Your task to perform on an android device: change alarm snooze length Image 0: 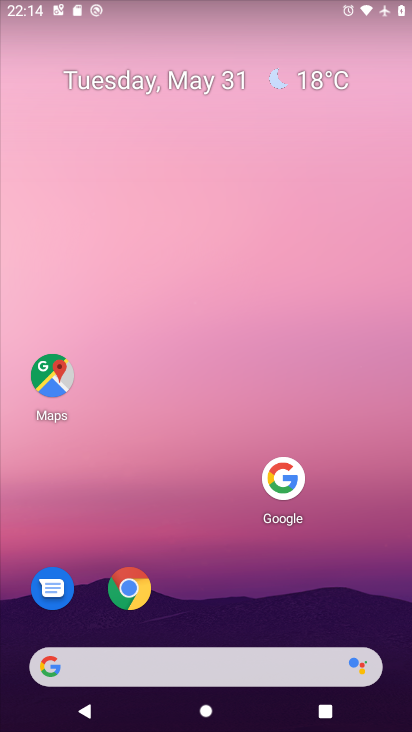
Step 0: press home button
Your task to perform on an android device: change alarm snooze length Image 1: 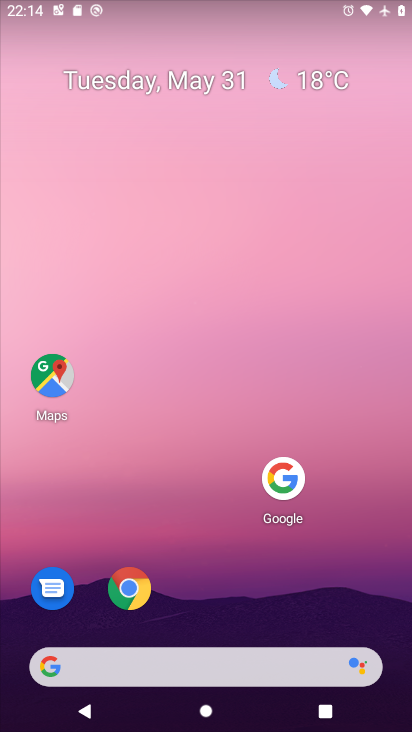
Step 1: drag from (176, 666) to (281, 223)
Your task to perform on an android device: change alarm snooze length Image 2: 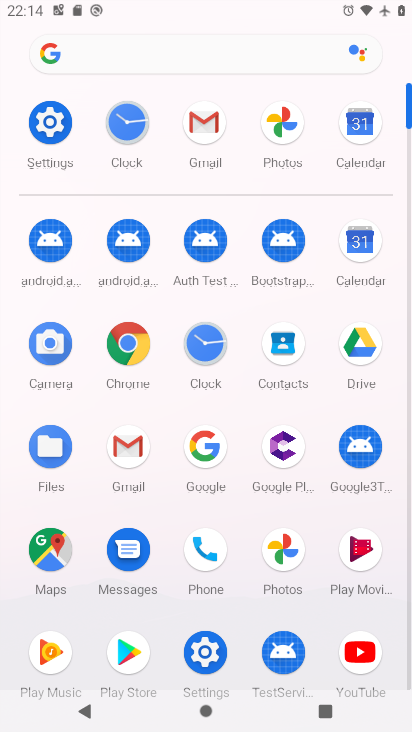
Step 2: click (199, 345)
Your task to perform on an android device: change alarm snooze length Image 3: 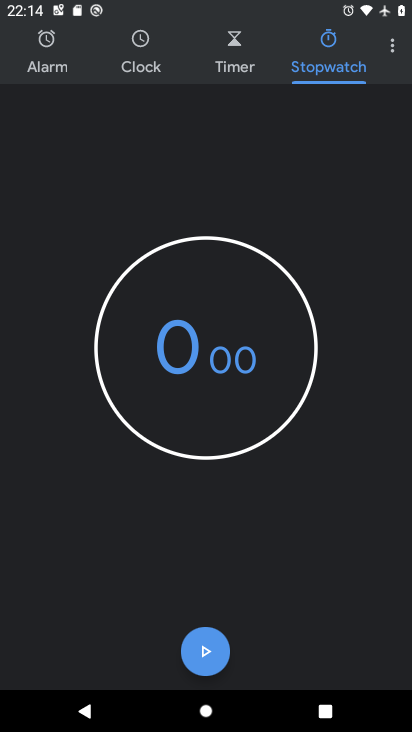
Step 3: click (394, 49)
Your task to perform on an android device: change alarm snooze length Image 4: 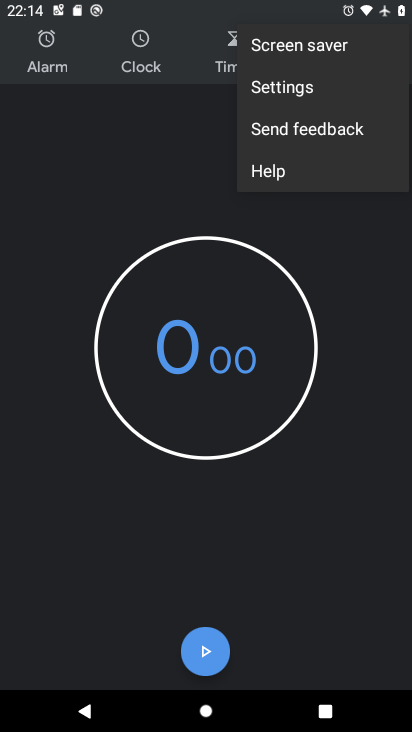
Step 4: click (287, 94)
Your task to perform on an android device: change alarm snooze length Image 5: 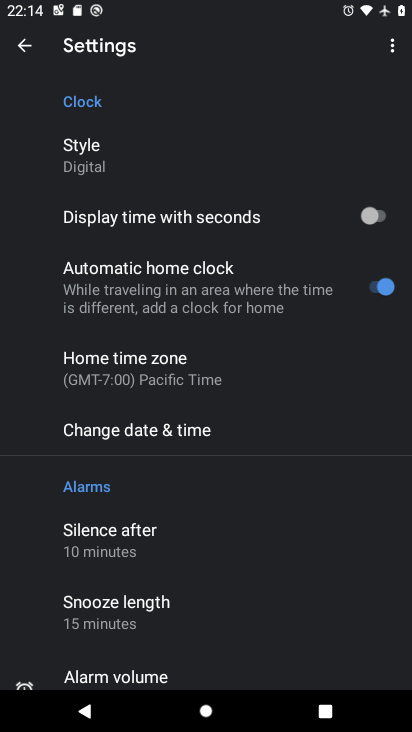
Step 5: click (129, 614)
Your task to perform on an android device: change alarm snooze length Image 6: 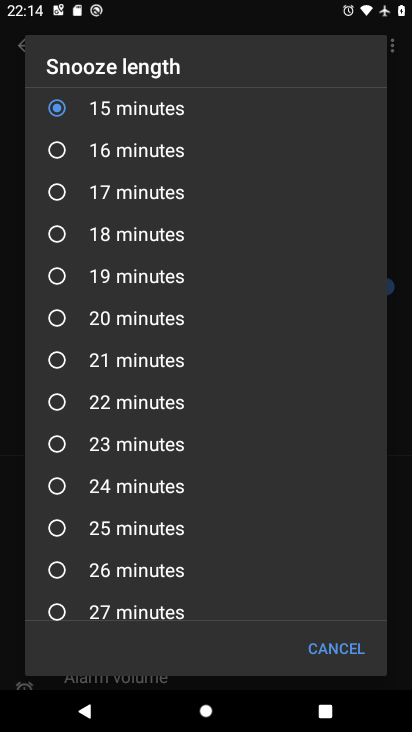
Step 6: click (60, 232)
Your task to perform on an android device: change alarm snooze length Image 7: 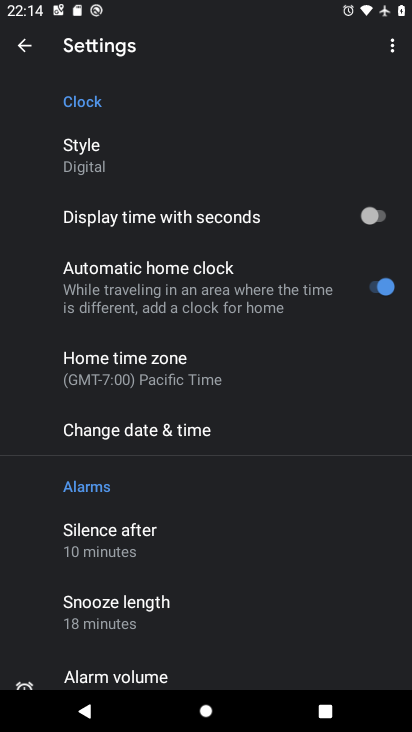
Step 7: task complete